Your task to perform on an android device: change the clock display to analog Image 0: 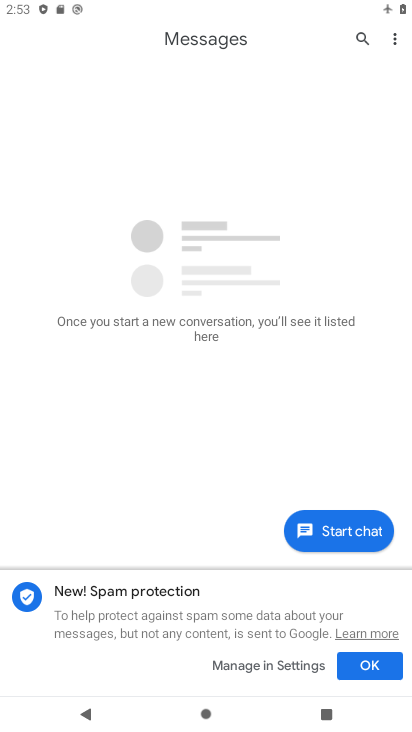
Step 0: press home button
Your task to perform on an android device: change the clock display to analog Image 1: 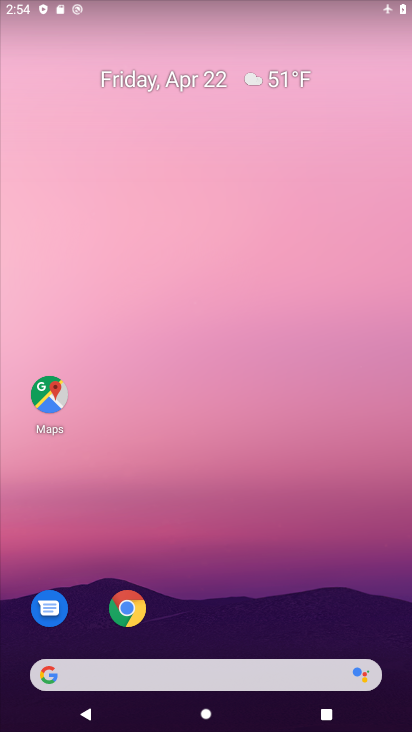
Step 1: drag from (226, 422) to (244, 82)
Your task to perform on an android device: change the clock display to analog Image 2: 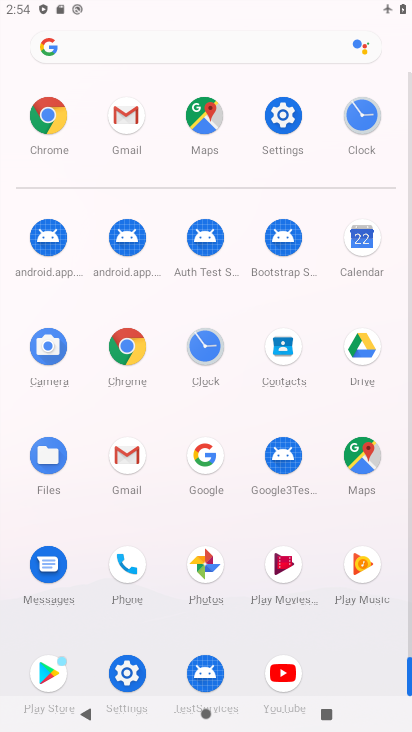
Step 2: click (364, 111)
Your task to perform on an android device: change the clock display to analog Image 3: 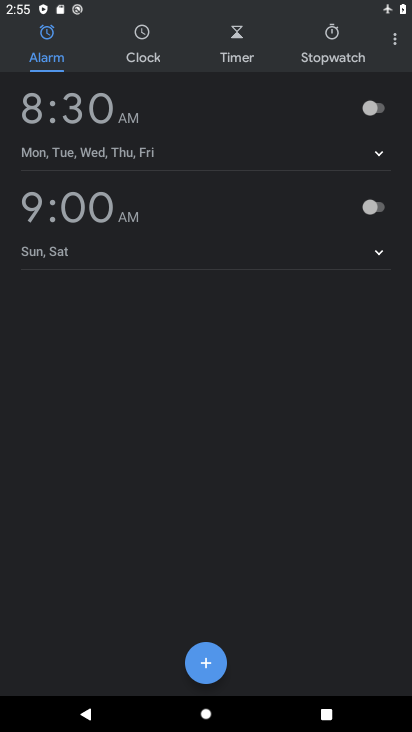
Step 3: click (399, 37)
Your task to perform on an android device: change the clock display to analog Image 4: 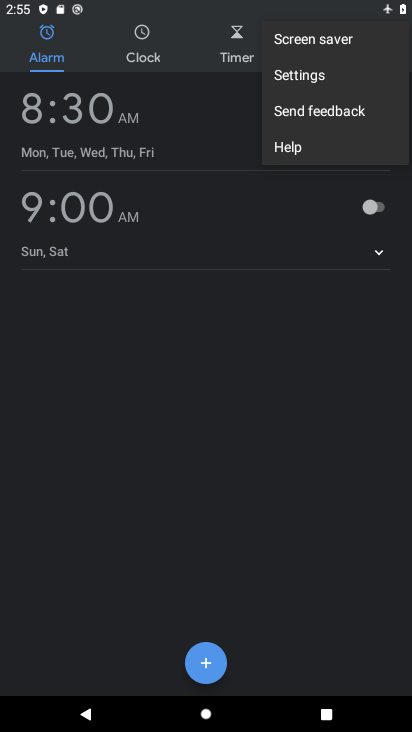
Step 4: click (336, 80)
Your task to perform on an android device: change the clock display to analog Image 5: 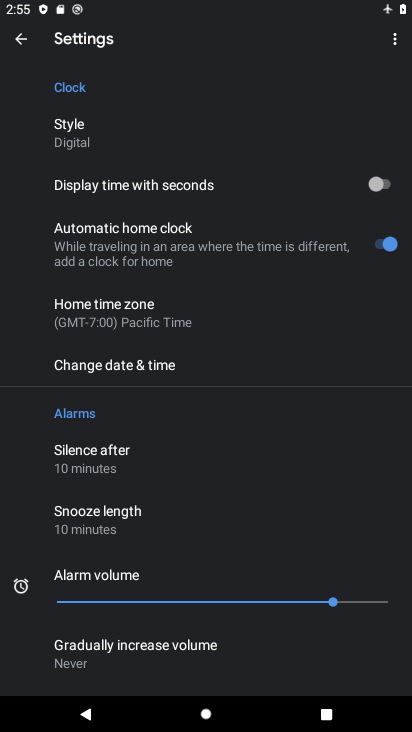
Step 5: click (107, 131)
Your task to perform on an android device: change the clock display to analog Image 6: 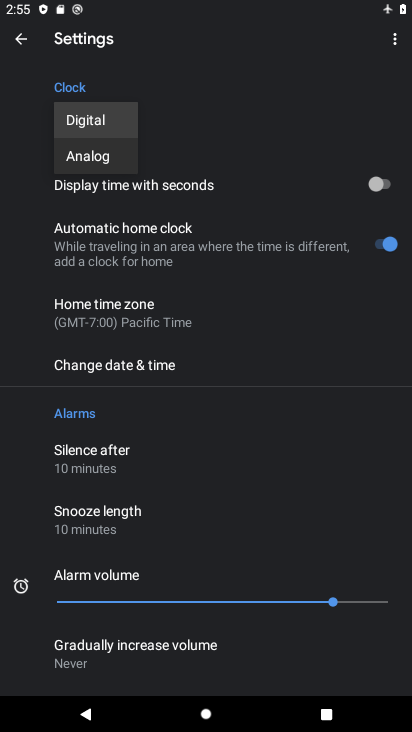
Step 6: click (105, 157)
Your task to perform on an android device: change the clock display to analog Image 7: 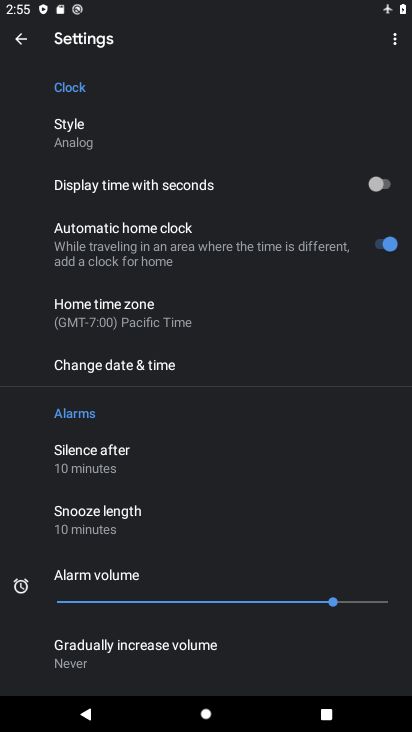
Step 7: task complete